Your task to perform on an android device: When is my next appointment? Image 0: 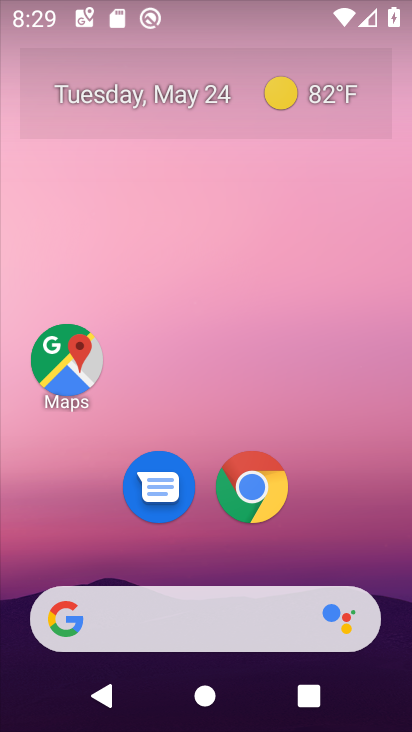
Step 0: drag from (363, 540) to (364, 114)
Your task to perform on an android device: When is my next appointment? Image 1: 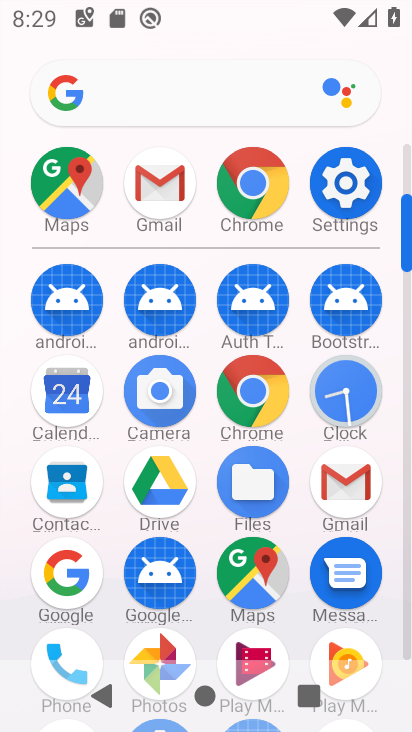
Step 1: click (63, 404)
Your task to perform on an android device: When is my next appointment? Image 2: 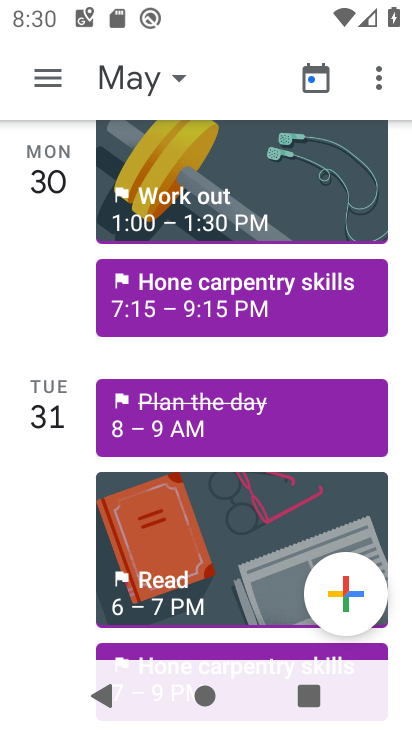
Step 2: task complete